Your task to perform on an android device: set an alarm Image 0: 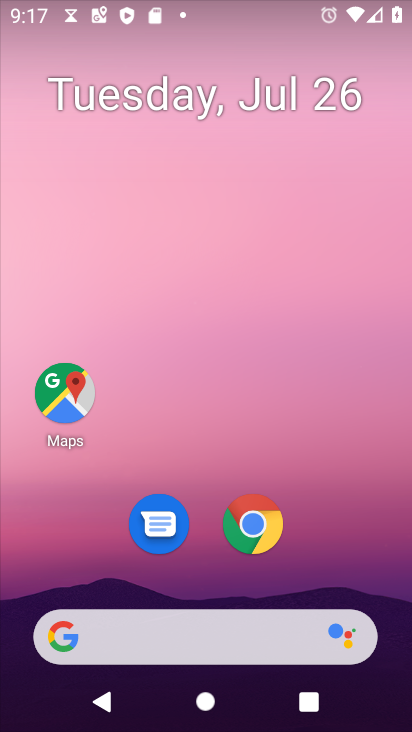
Step 0: press home button
Your task to perform on an android device: set an alarm Image 1: 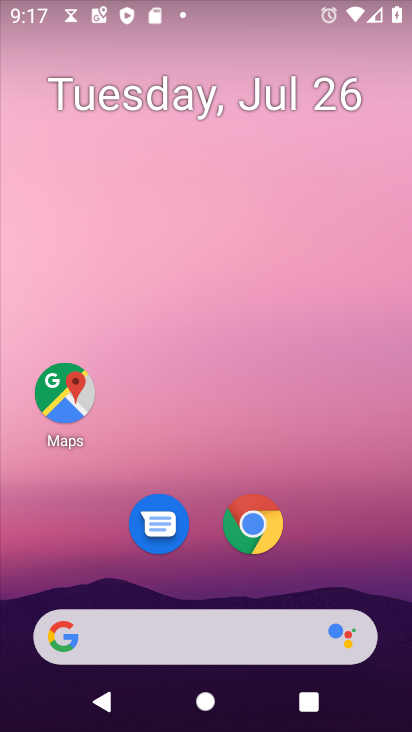
Step 1: drag from (203, 640) to (378, 114)
Your task to perform on an android device: set an alarm Image 2: 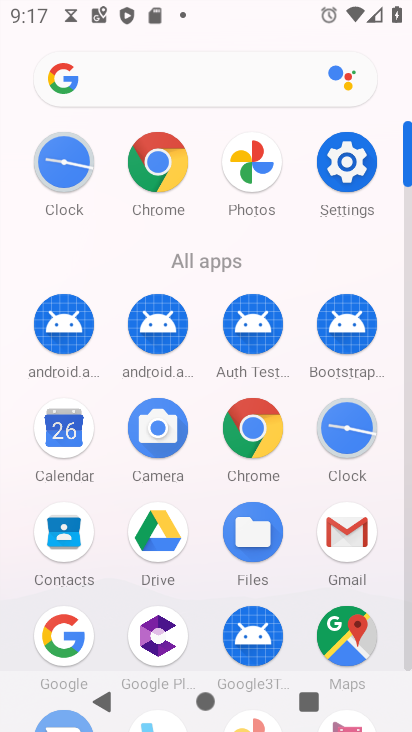
Step 2: click (340, 431)
Your task to perform on an android device: set an alarm Image 3: 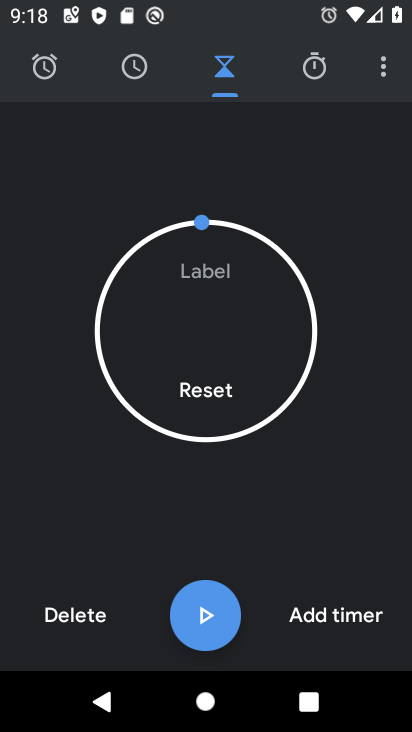
Step 3: task complete